Your task to perform on an android device: Open Android settings Image 0: 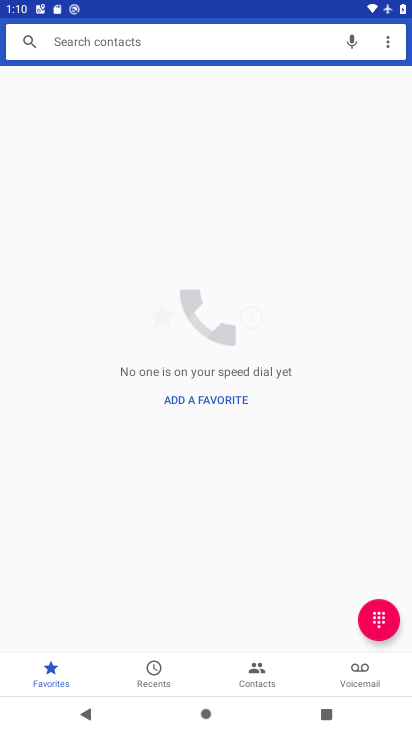
Step 0: press home button
Your task to perform on an android device: Open Android settings Image 1: 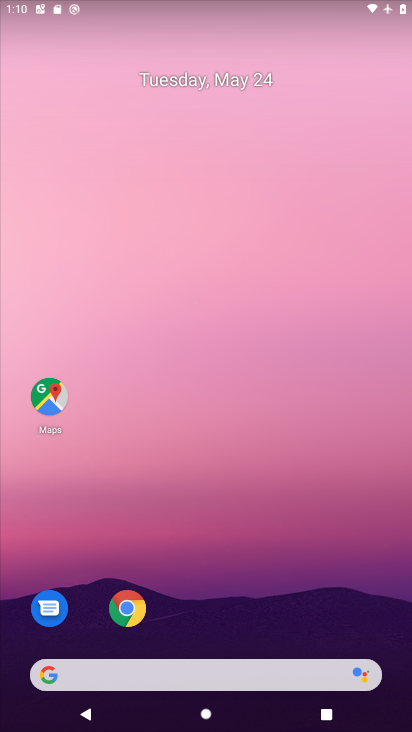
Step 1: drag from (238, 601) to (267, 2)
Your task to perform on an android device: Open Android settings Image 2: 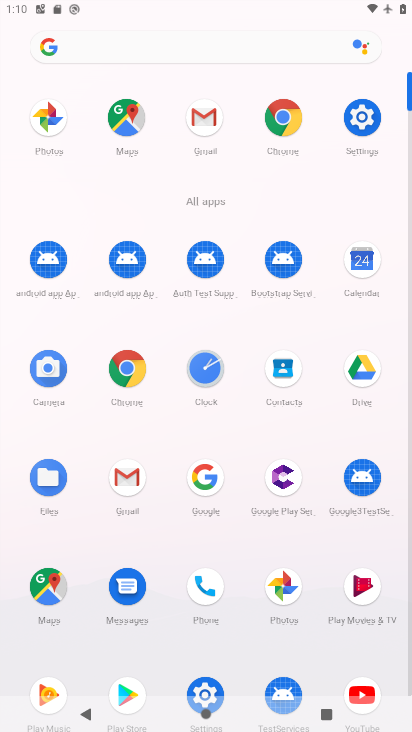
Step 2: click (361, 174)
Your task to perform on an android device: Open Android settings Image 3: 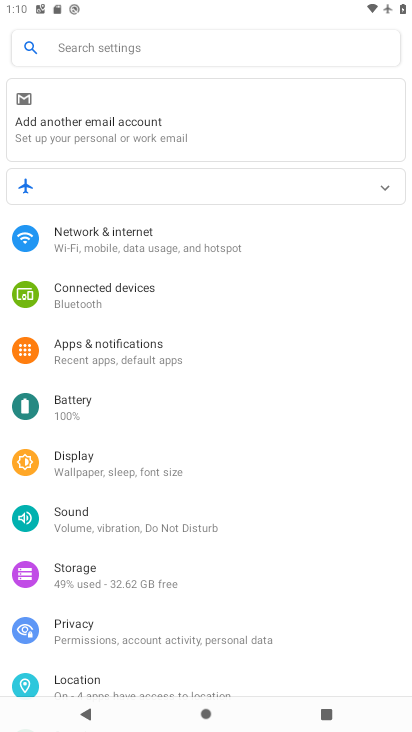
Step 3: task complete